Your task to perform on an android device: Open sound settings Image 0: 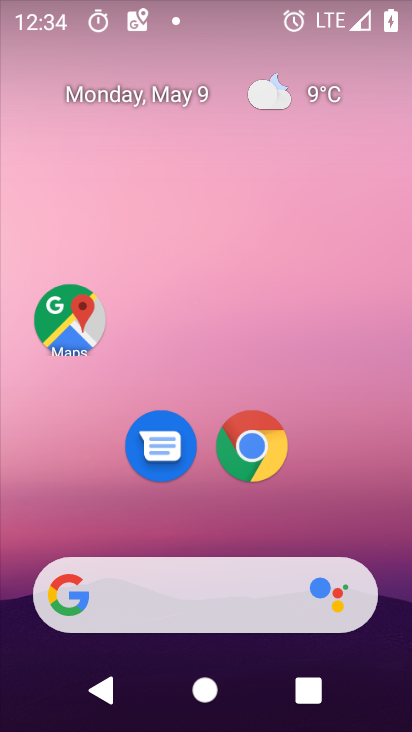
Step 0: drag from (380, 577) to (391, 16)
Your task to perform on an android device: Open sound settings Image 1: 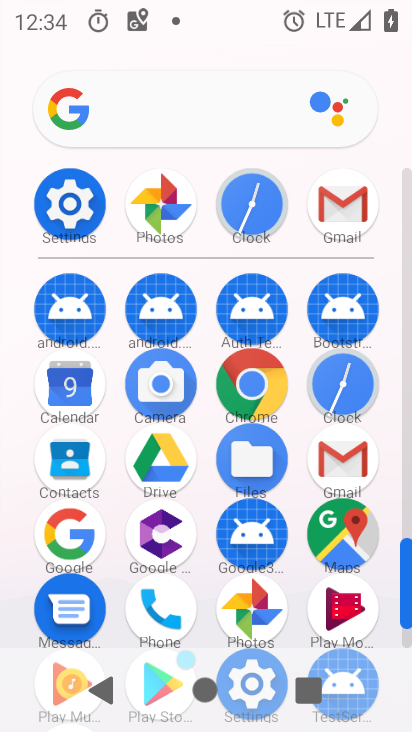
Step 1: click (57, 203)
Your task to perform on an android device: Open sound settings Image 2: 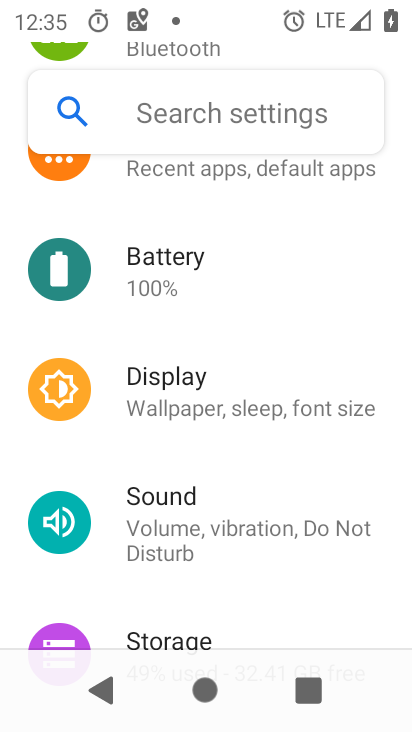
Step 2: click (164, 532)
Your task to perform on an android device: Open sound settings Image 3: 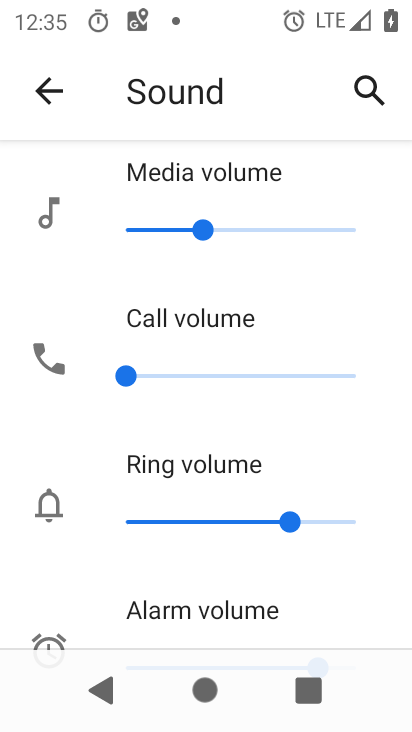
Step 3: task complete